Your task to perform on an android device: Open Youtube and go to the subscriptions tab Image 0: 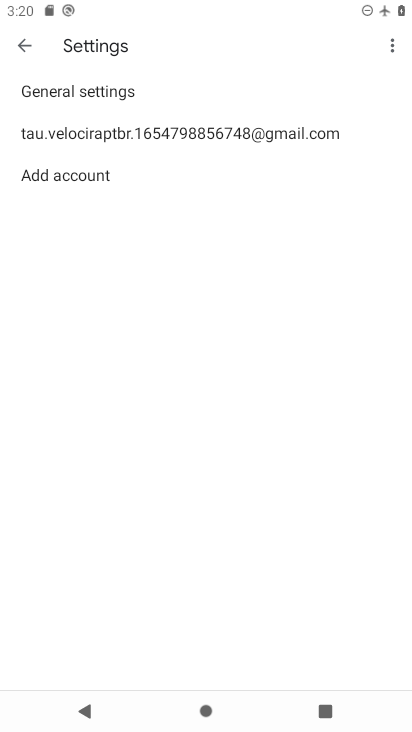
Step 0: press home button
Your task to perform on an android device: Open Youtube and go to the subscriptions tab Image 1: 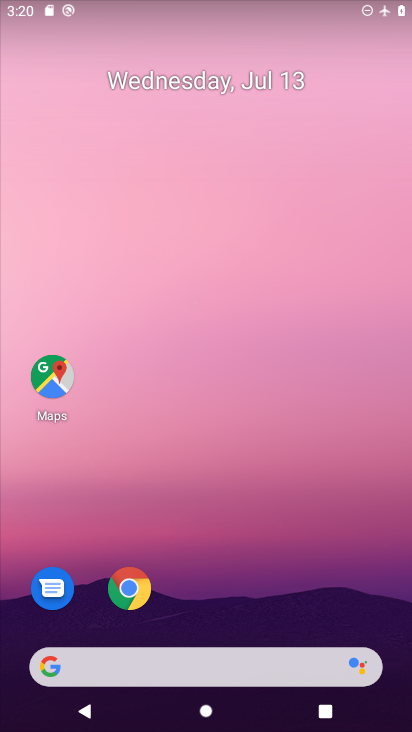
Step 1: drag from (201, 617) to (216, 85)
Your task to perform on an android device: Open Youtube and go to the subscriptions tab Image 2: 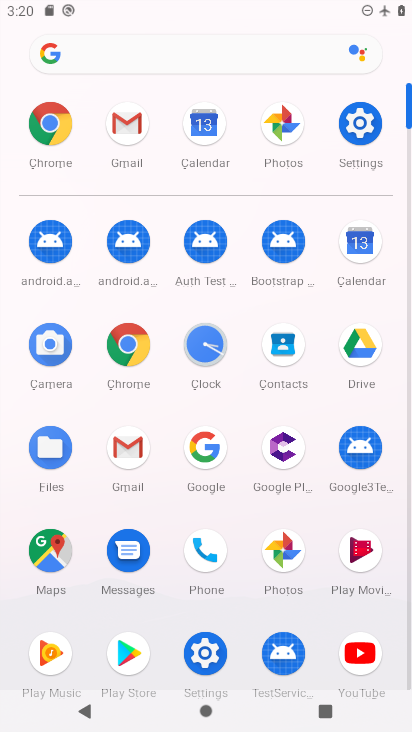
Step 2: click (352, 643)
Your task to perform on an android device: Open Youtube and go to the subscriptions tab Image 3: 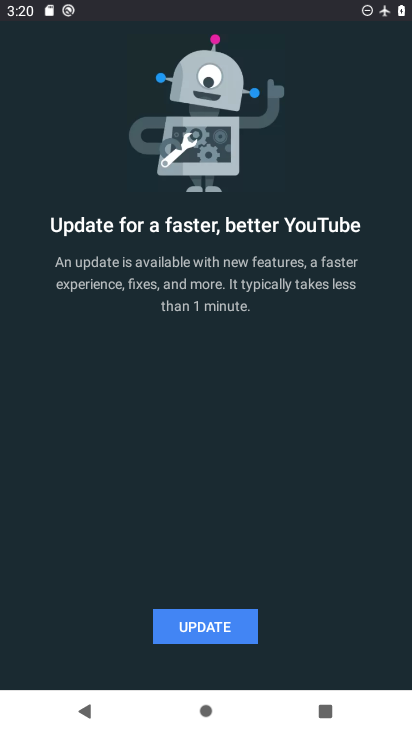
Step 3: click (215, 618)
Your task to perform on an android device: Open Youtube and go to the subscriptions tab Image 4: 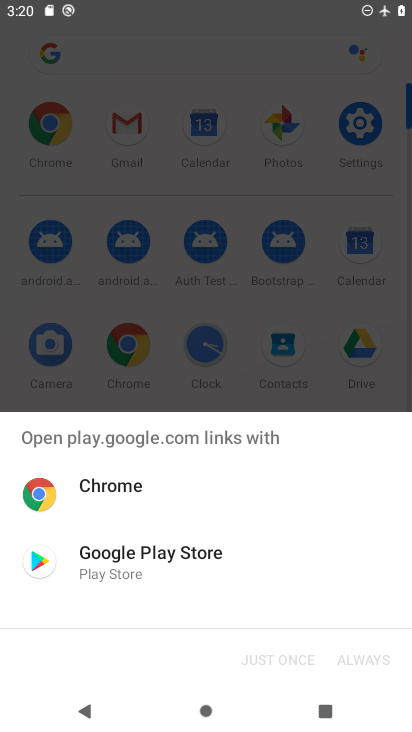
Step 4: click (126, 571)
Your task to perform on an android device: Open Youtube and go to the subscriptions tab Image 5: 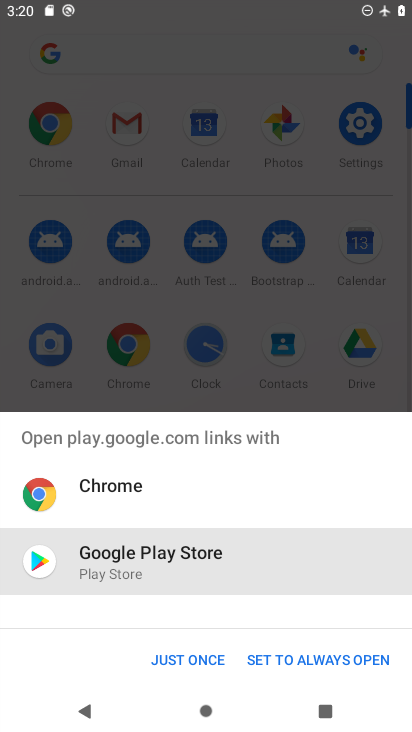
Step 5: click (186, 653)
Your task to perform on an android device: Open Youtube and go to the subscriptions tab Image 6: 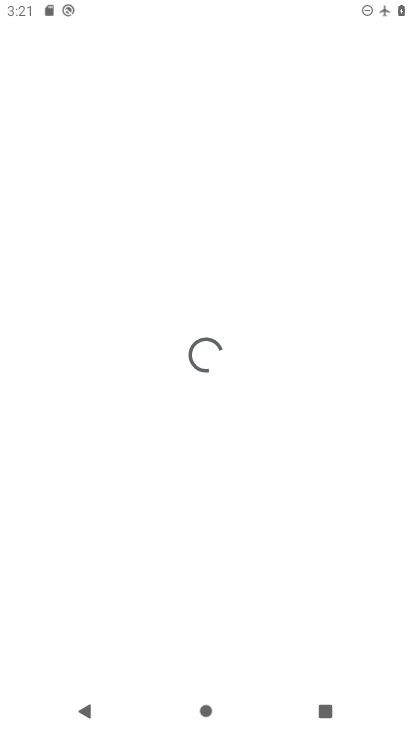
Step 6: task complete